Your task to perform on an android device: Open Google Chrome and open the bookmarks view Image 0: 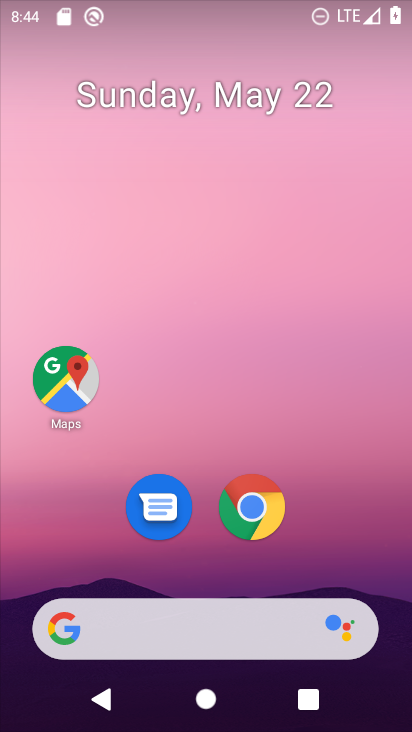
Step 0: drag from (162, 281) to (223, 11)
Your task to perform on an android device: Open Google Chrome and open the bookmarks view Image 1: 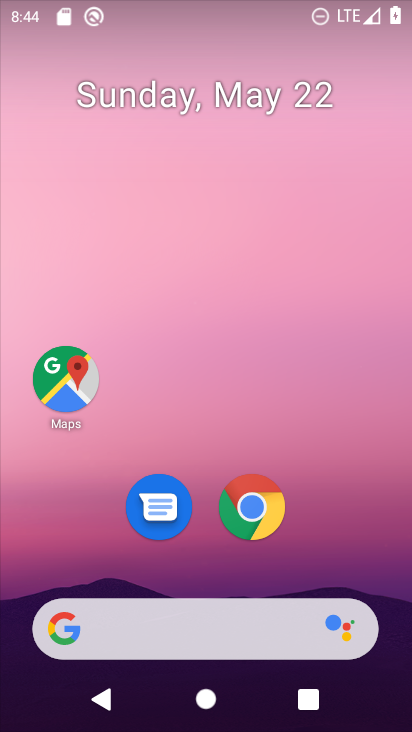
Step 1: click (257, 529)
Your task to perform on an android device: Open Google Chrome and open the bookmarks view Image 2: 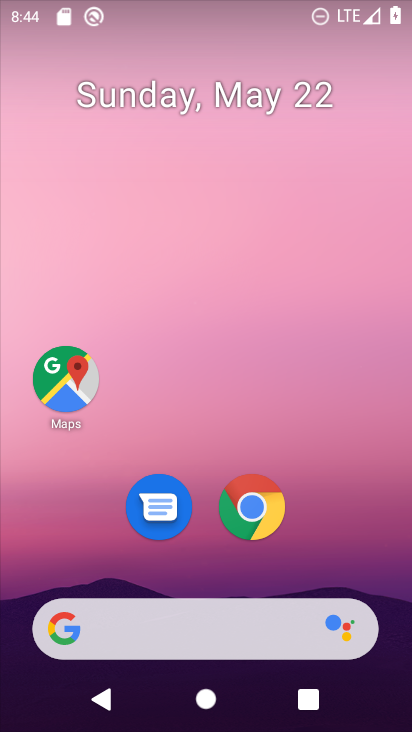
Step 2: click (257, 529)
Your task to perform on an android device: Open Google Chrome and open the bookmarks view Image 3: 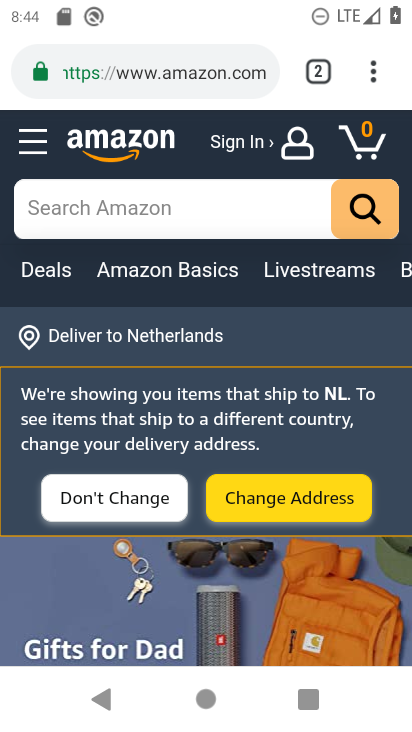
Step 3: click (378, 63)
Your task to perform on an android device: Open Google Chrome and open the bookmarks view Image 4: 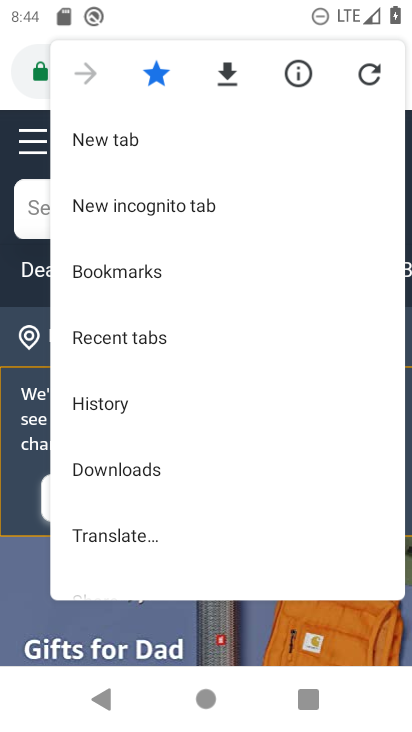
Step 4: click (93, 265)
Your task to perform on an android device: Open Google Chrome and open the bookmarks view Image 5: 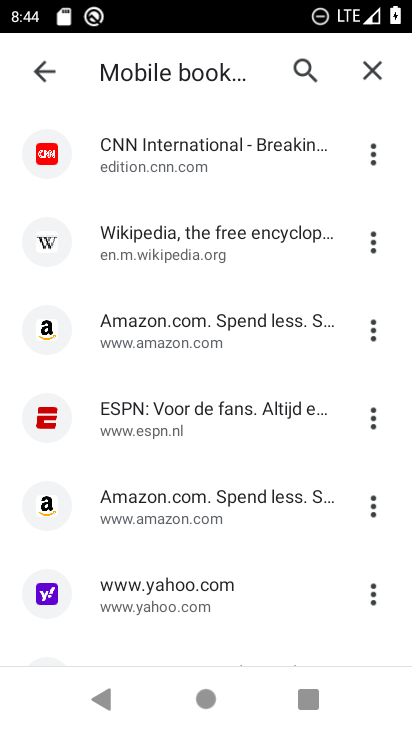
Step 5: task complete